Your task to perform on an android device: Go to wifi settings Image 0: 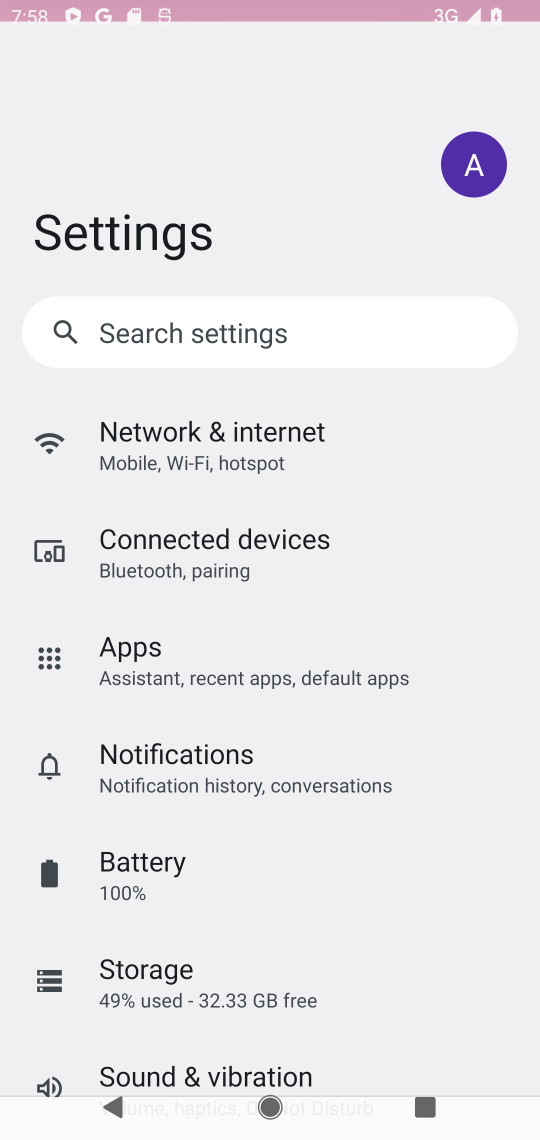
Step 0: press home button
Your task to perform on an android device: Go to wifi settings Image 1: 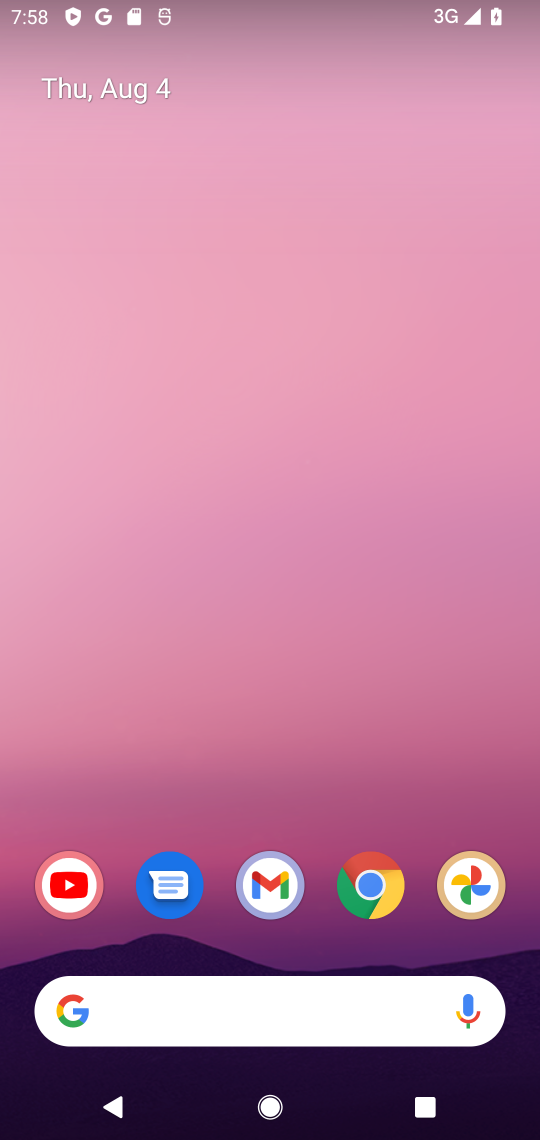
Step 1: drag from (292, 816) to (326, 33)
Your task to perform on an android device: Go to wifi settings Image 2: 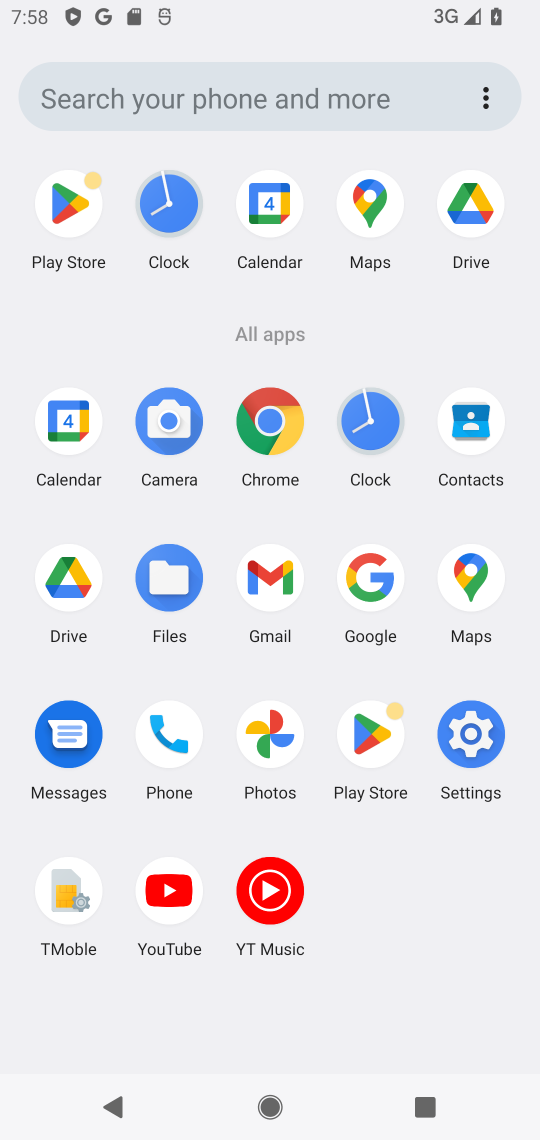
Step 2: click (476, 731)
Your task to perform on an android device: Go to wifi settings Image 3: 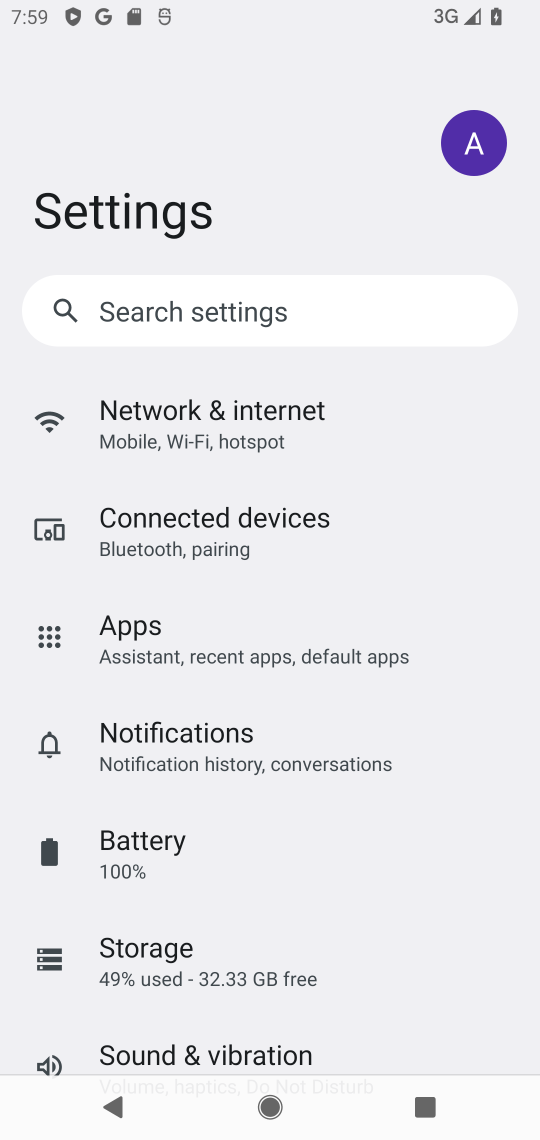
Step 3: click (301, 424)
Your task to perform on an android device: Go to wifi settings Image 4: 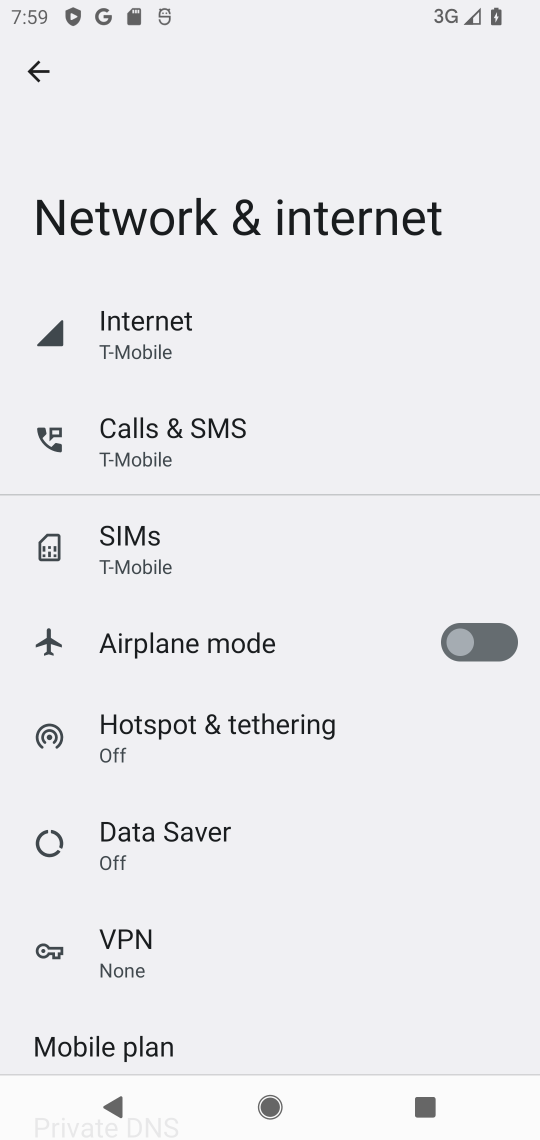
Step 4: click (183, 341)
Your task to perform on an android device: Go to wifi settings Image 5: 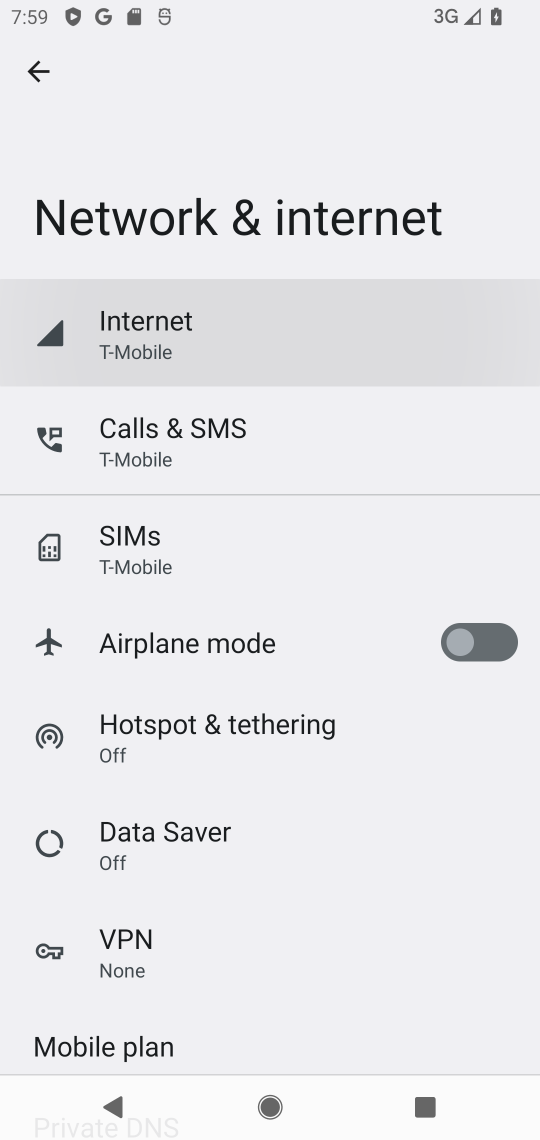
Step 5: drag from (295, 395) to (307, 290)
Your task to perform on an android device: Go to wifi settings Image 6: 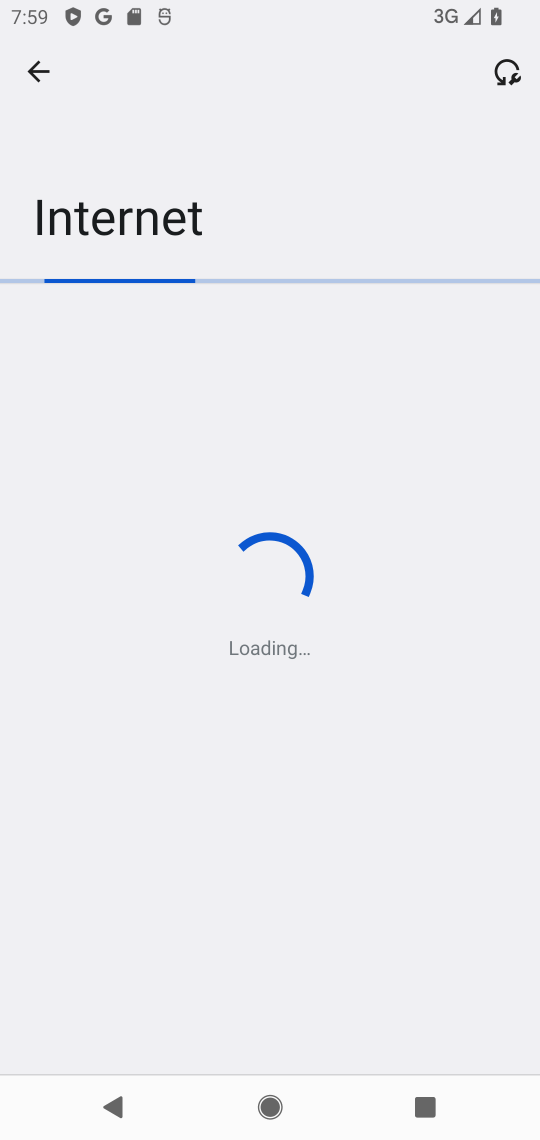
Step 6: click (190, 329)
Your task to perform on an android device: Go to wifi settings Image 7: 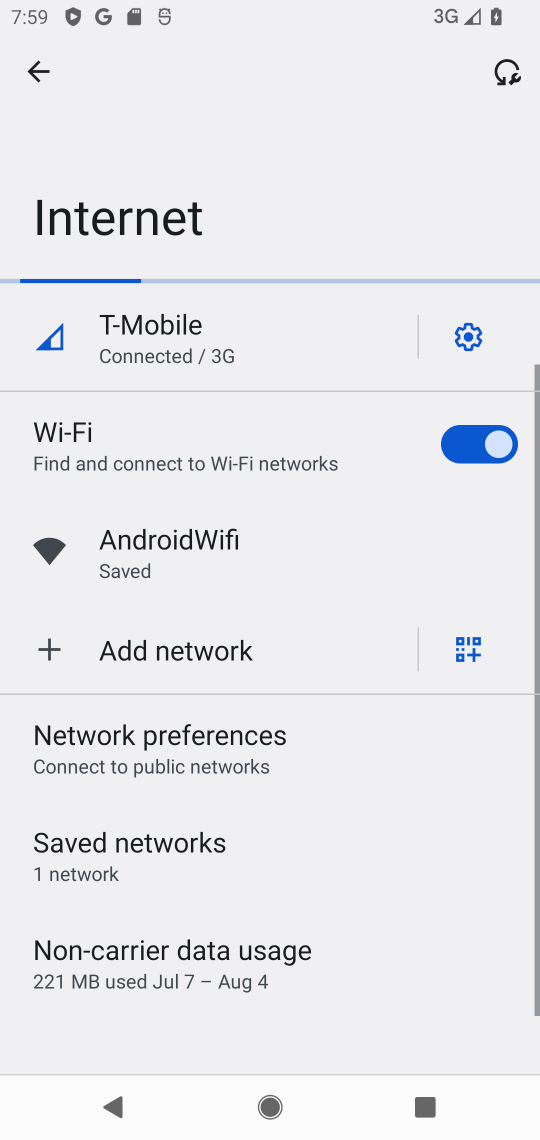
Step 7: click (40, 63)
Your task to perform on an android device: Go to wifi settings Image 8: 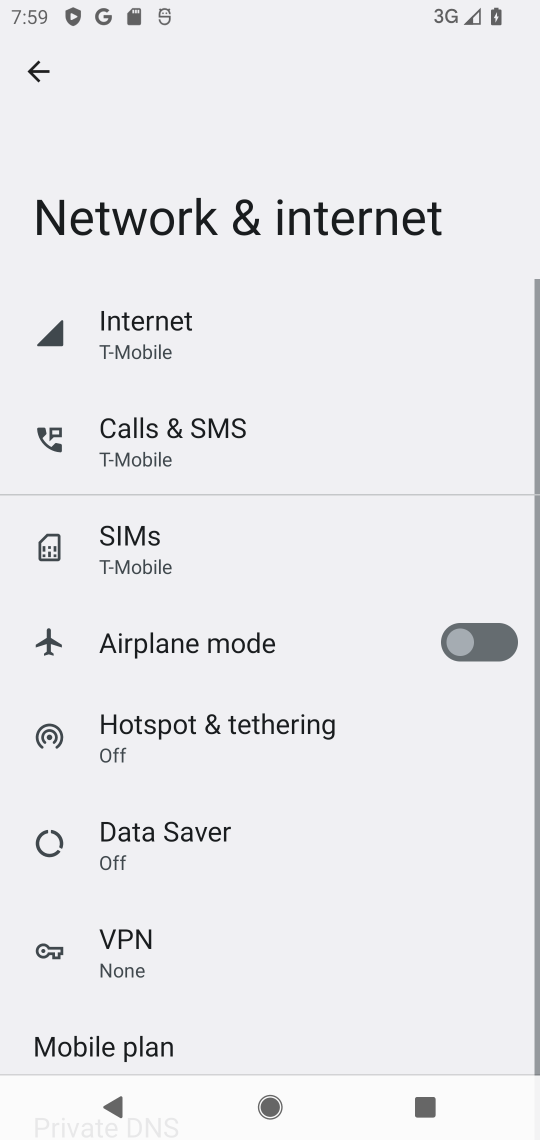
Step 8: click (172, 325)
Your task to perform on an android device: Go to wifi settings Image 9: 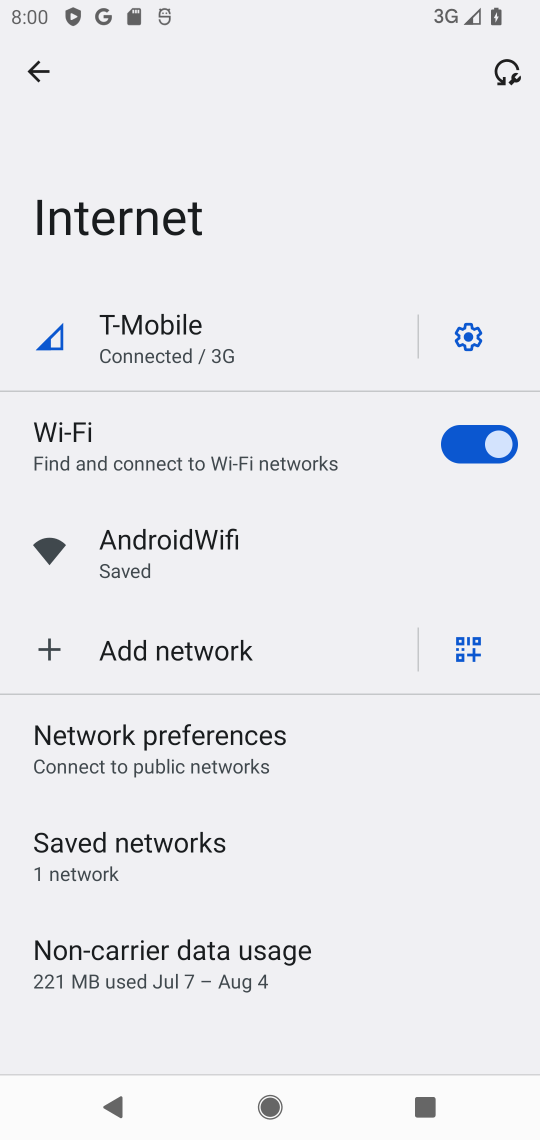
Step 9: task complete